Your task to perform on an android device: When is my next appointment? Image 0: 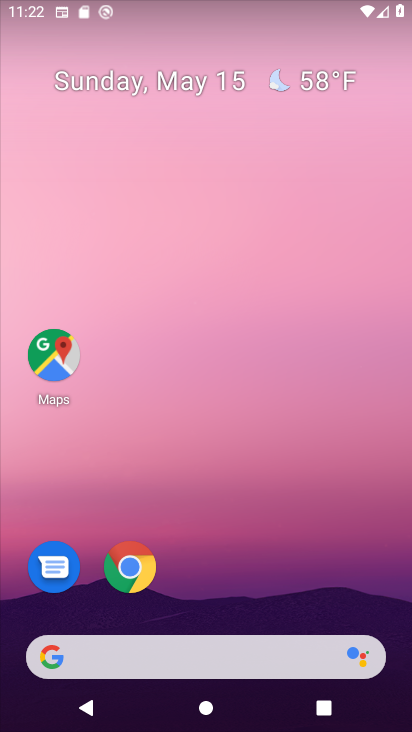
Step 0: click (362, 444)
Your task to perform on an android device: When is my next appointment? Image 1: 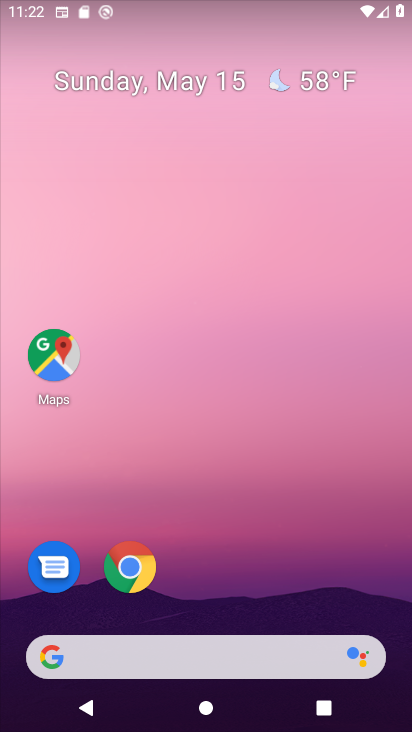
Step 1: drag from (206, 605) to (401, 2)
Your task to perform on an android device: When is my next appointment? Image 2: 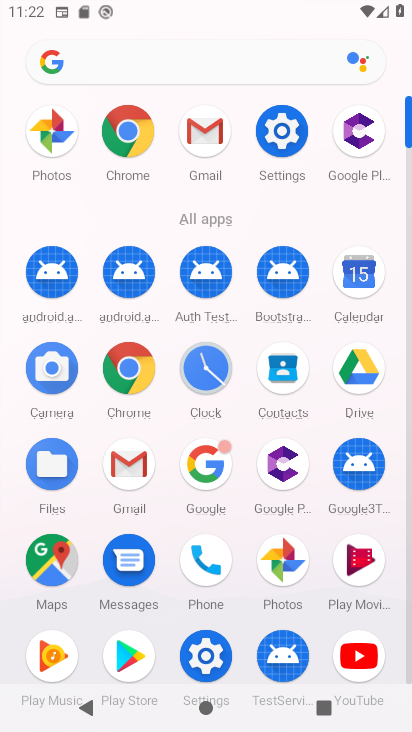
Step 2: click (365, 272)
Your task to perform on an android device: When is my next appointment? Image 3: 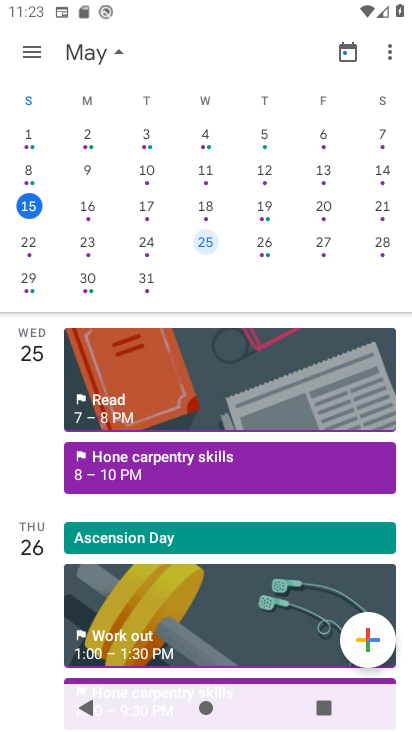
Step 3: task complete